Your task to perform on an android device: open app "McDonald's" (install if not already installed), go to login, and select forgot password Image 0: 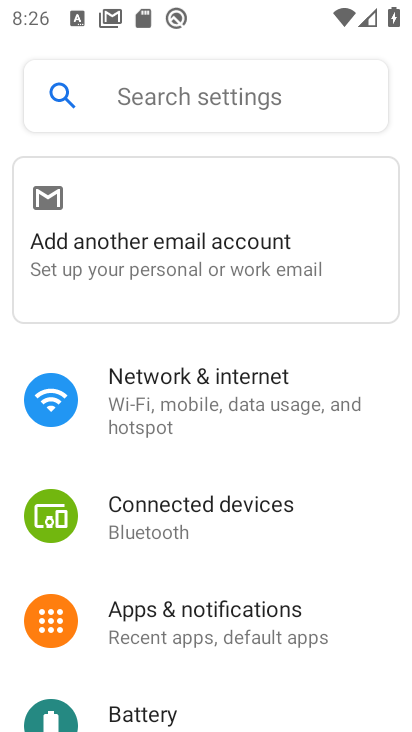
Step 0: press home button
Your task to perform on an android device: open app "McDonald's" (install if not already installed), go to login, and select forgot password Image 1: 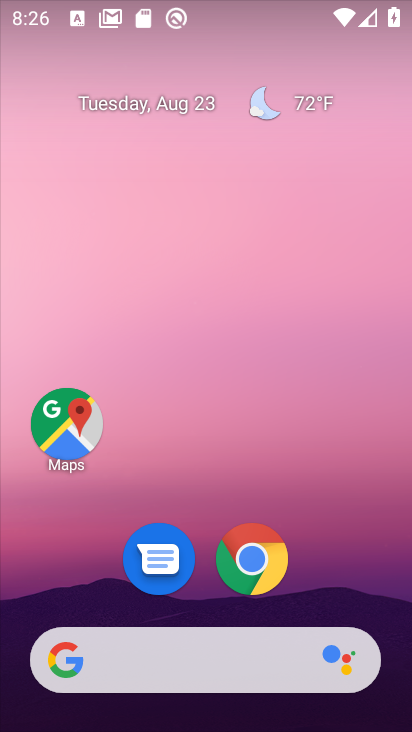
Step 1: drag from (148, 495) to (150, 171)
Your task to perform on an android device: open app "McDonald's" (install if not already installed), go to login, and select forgot password Image 2: 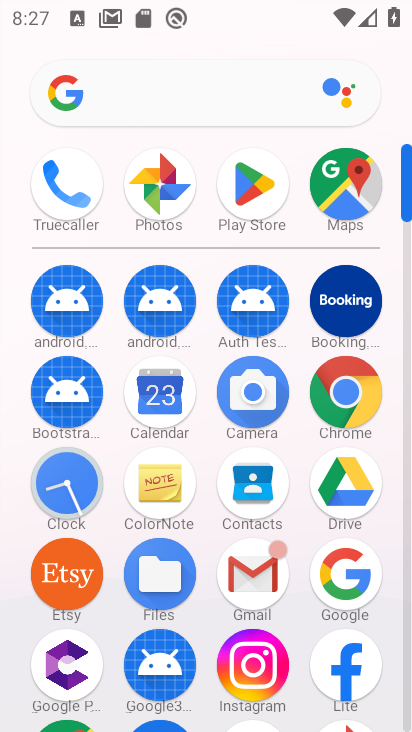
Step 2: click (233, 179)
Your task to perform on an android device: open app "McDonald's" (install if not already installed), go to login, and select forgot password Image 3: 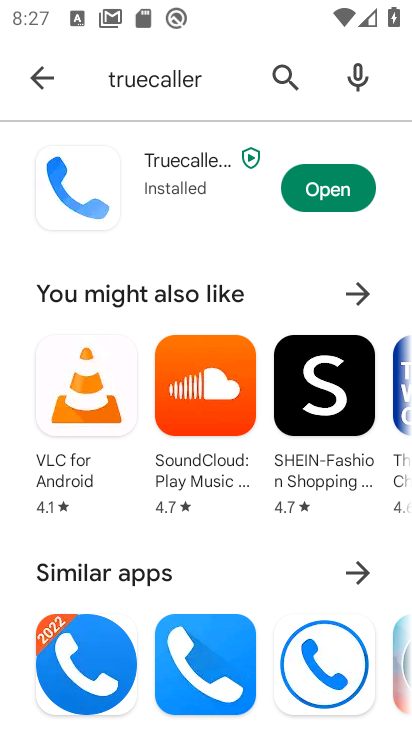
Step 3: click (287, 80)
Your task to perform on an android device: open app "McDonald's" (install if not already installed), go to login, and select forgot password Image 4: 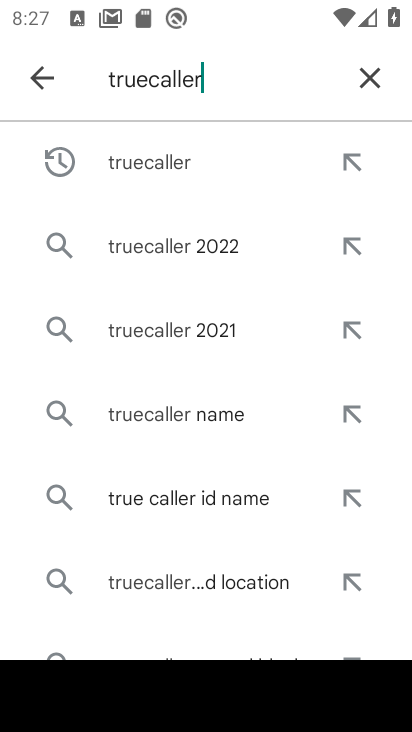
Step 4: click (356, 64)
Your task to perform on an android device: open app "McDonald's" (install if not already installed), go to login, and select forgot password Image 5: 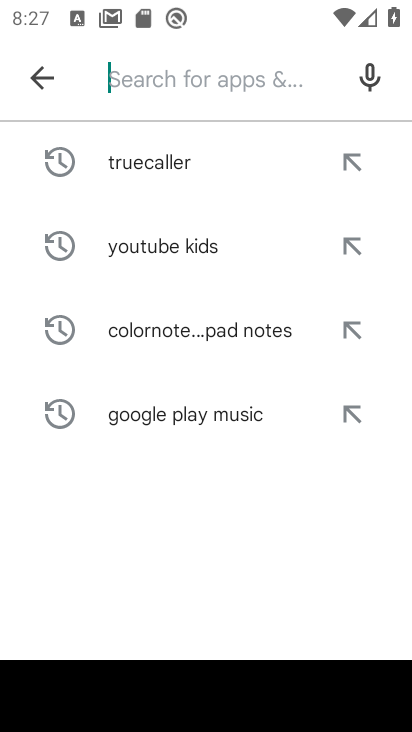
Step 5: type "McDonald's"
Your task to perform on an android device: open app "McDonald's" (install if not already installed), go to login, and select forgot password Image 6: 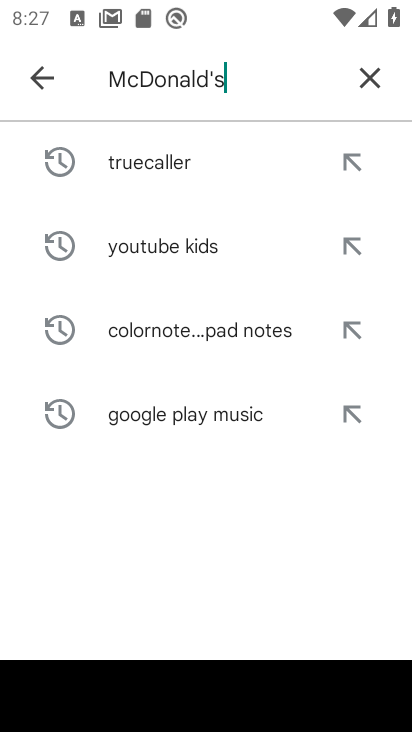
Step 6: type ""
Your task to perform on an android device: open app "McDonald's" (install if not already installed), go to login, and select forgot password Image 7: 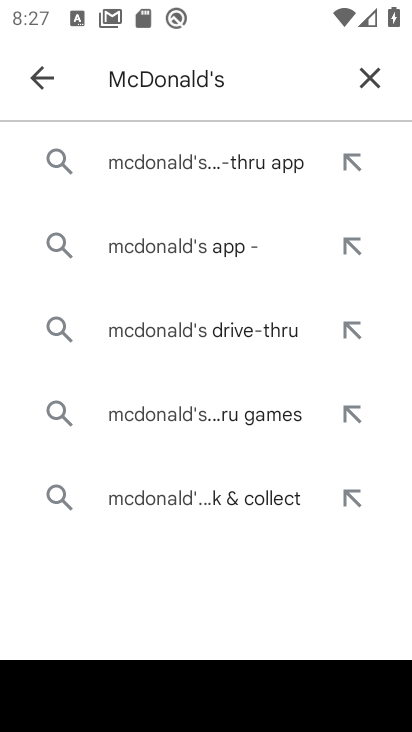
Step 7: click (222, 171)
Your task to perform on an android device: open app "McDonald's" (install if not already installed), go to login, and select forgot password Image 8: 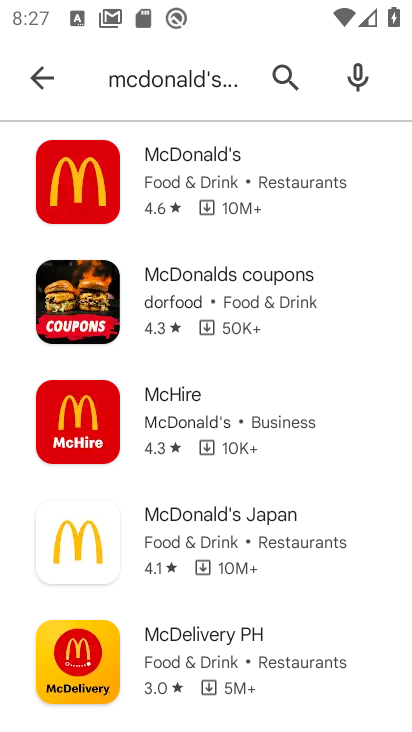
Step 8: click (222, 171)
Your task to perform on an android device: open app "McDonald's" (install if not already installed), go to login, and select forgot password Image 9: 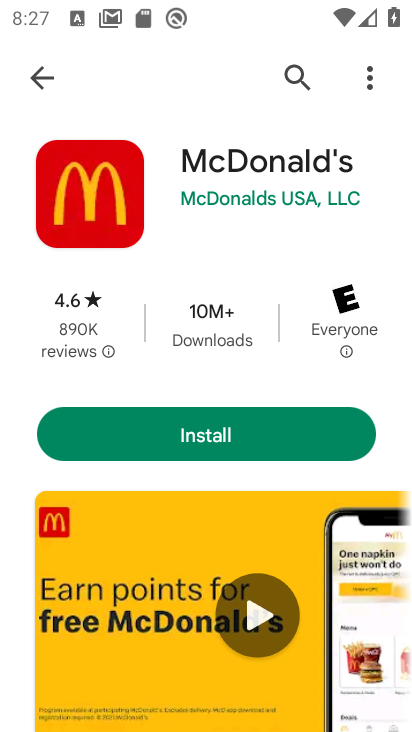
Step 9: click (155, 426)
Your task to perform on an android device: open app "McDonald's" (install if not already installed), go to login, and select forgot password Image 10: 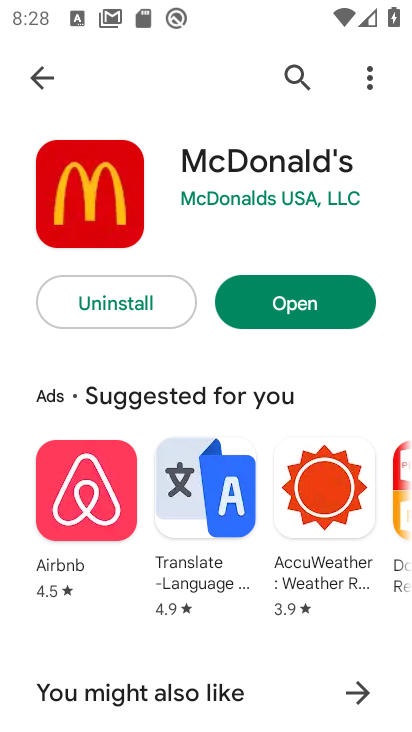
Step 10: click (255, 307)
Your task to perform on an android device: open app "McDonald's" (install if not already installed), go to login, and select forgot password Image 11: 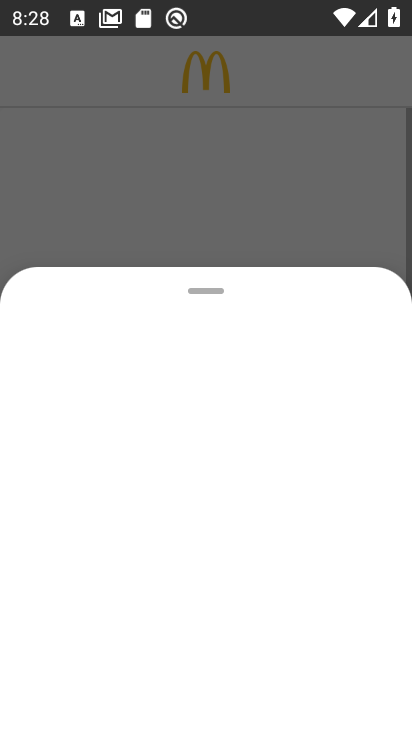
Step 11: task complete